Your task to perform on an android device: toggle javascript in the chrome app Image 0: 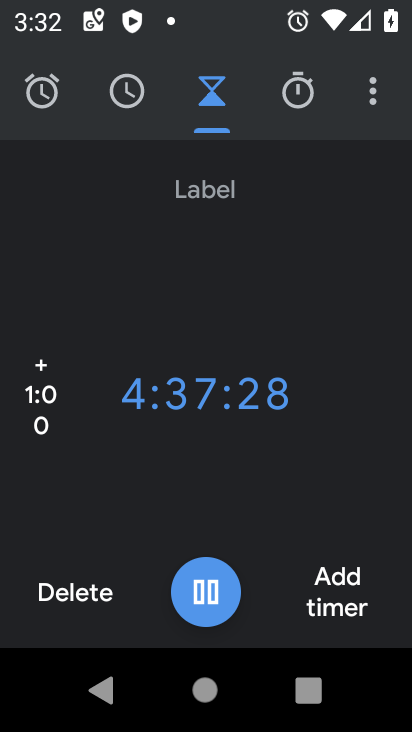
Step 0: press home button
Your task to perform on an android device: toggle javascript in the chrome app Image 1: 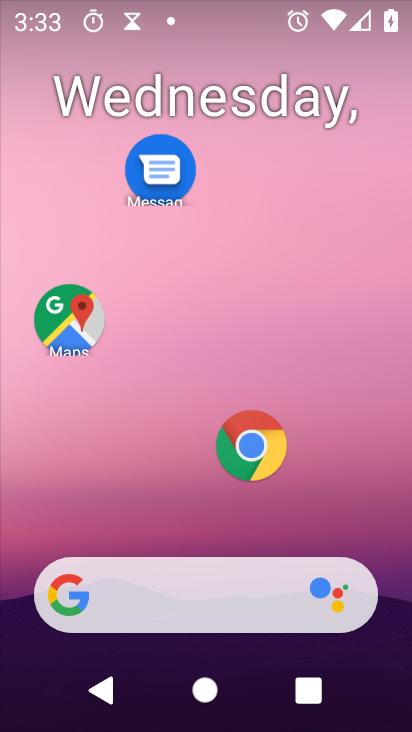
Step 1: click (255, 455)
Your task to perform on an android device: toggle javascript in the chrome app Image 2: 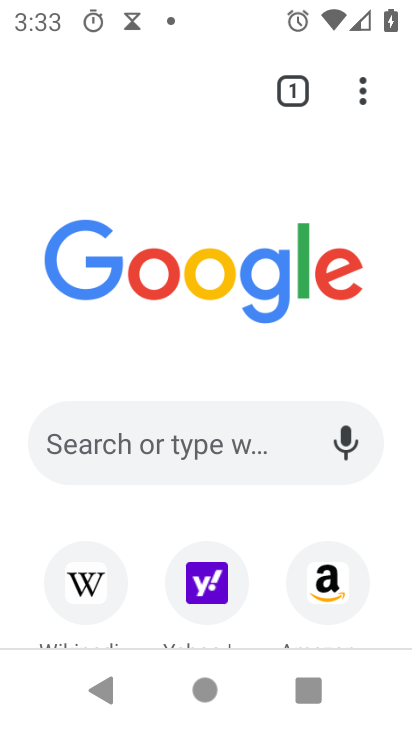
Step 2: click (365, 88)
Your task to perform on an android device: toggle javascript in the chrome app Image 3: 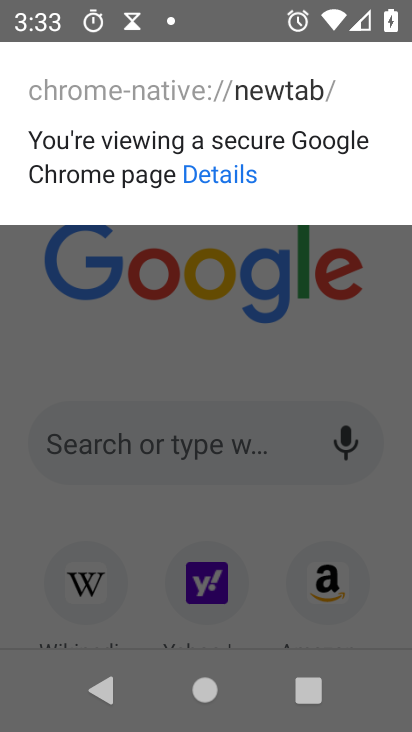
Step 3: press back button
Your task to perform on an android device: toggle javascript in the chrome app Image 4: 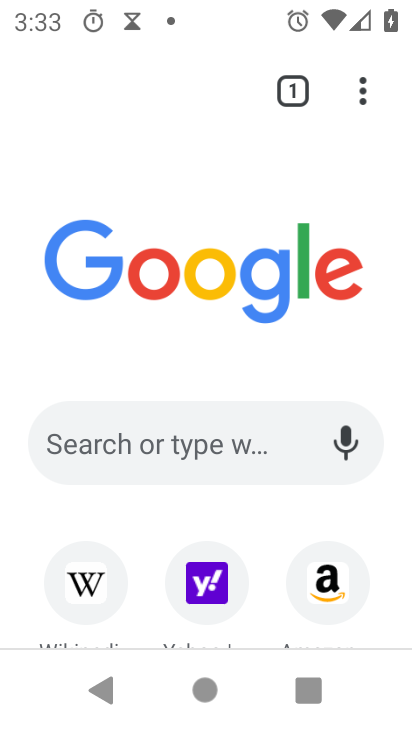
Step 4: click (364, 79)
Your task to perform on an android device: toggle javascript in the chrome app Image 5: 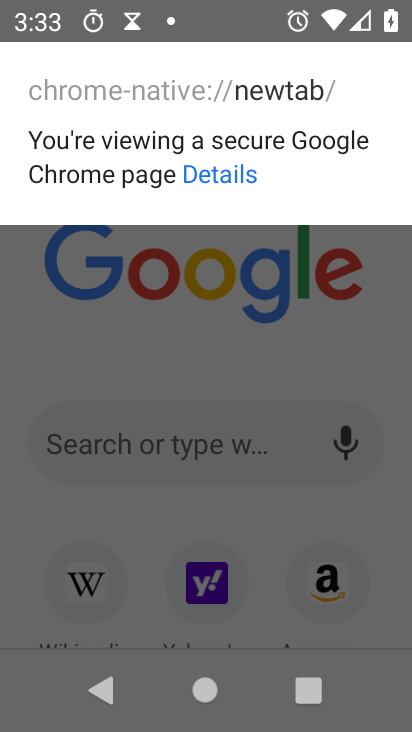
Step 5: press back button
Your task to perform on an android device: toggle javascript in the chrome app Image 6: 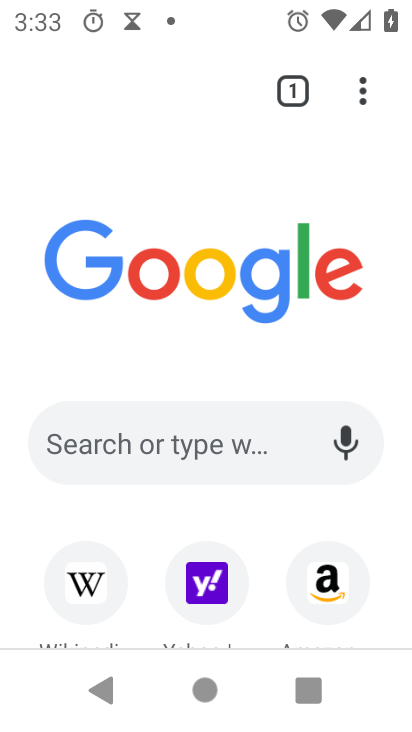
Step 6: click (358, 90)
Your task to perform on an android device: toggle javascript in the chrome app Image 7: 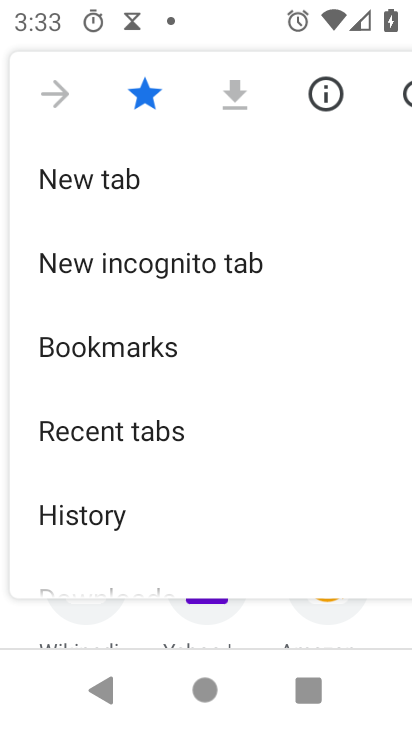
Step 7: drag from (34, 544) to (383, 61)
Your task to perform on an android device: toggle javascript in the chrome app Image 8: 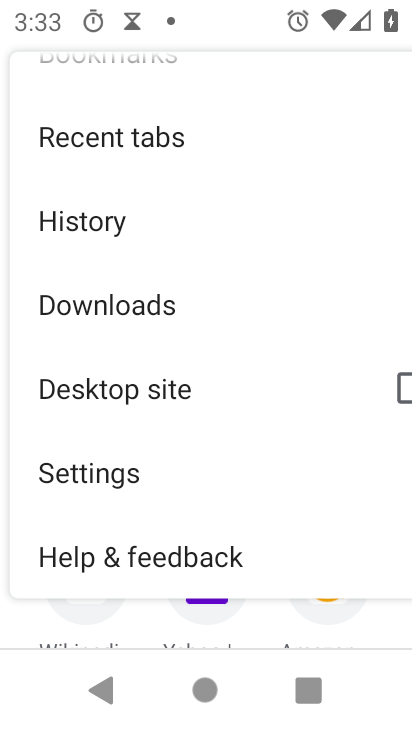
Step 8: click (111, 488)
Your task to perform on an android device: toggle javascript in the chrome app Image 9: 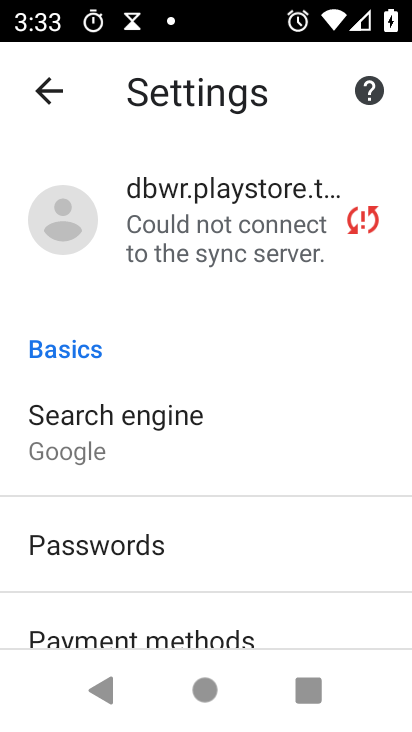
Step 9: drag from (22, 551) to (388, 91)
Your task to perform on an android device: toggle javascript in the chrome app Image 10: 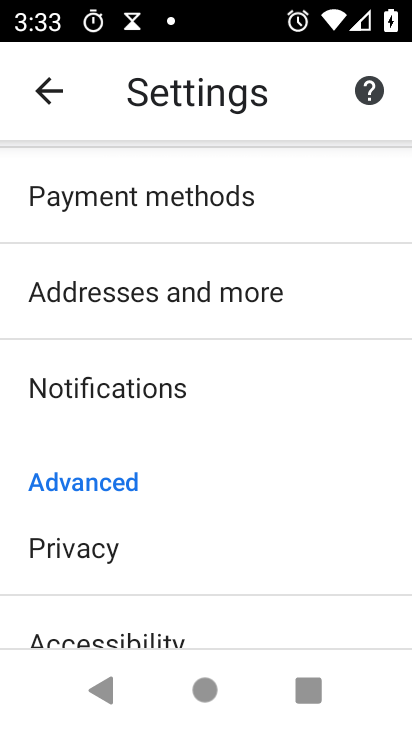
Step 10: drag from (31, 585) to (282, 276)
Your task to perform on an android device: toggle javascript in the chrome app Image 11: 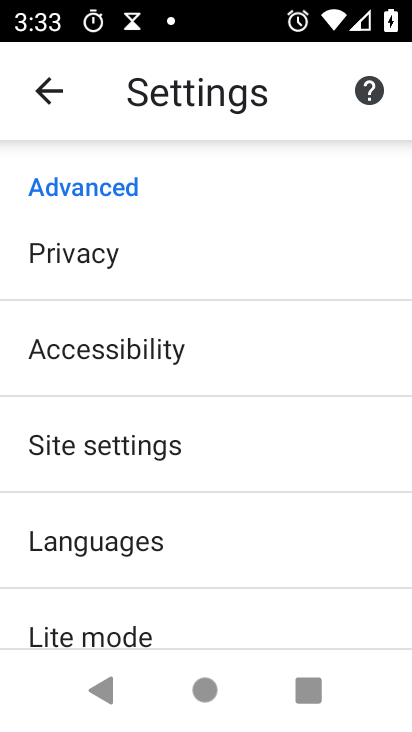
Step 11: click (122, 447)
Your task to perform on an android device: toggle javascript in the chrome app Image 12: 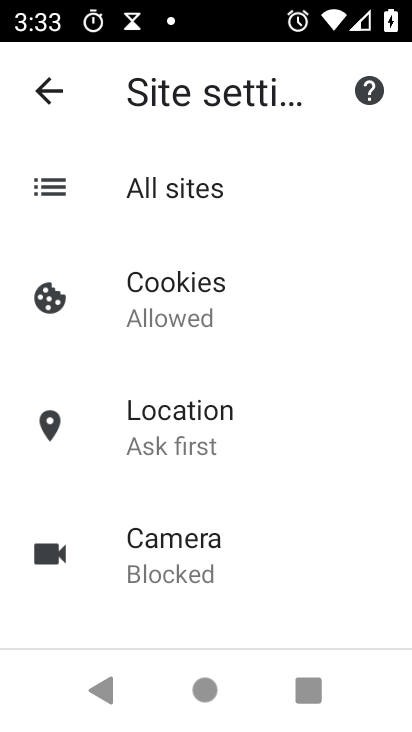
Step 12: drag from (56, 520) to (323, 147)
Your task to perform on an android device: toggle javascript in the chrome app Image 13: 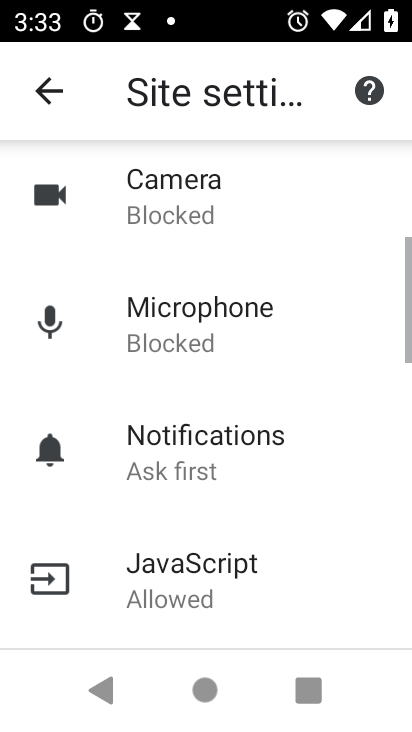
Step 13: click (109, 594)
Your task to perform on an android device: toggle javascript in the chrome app Image 14: 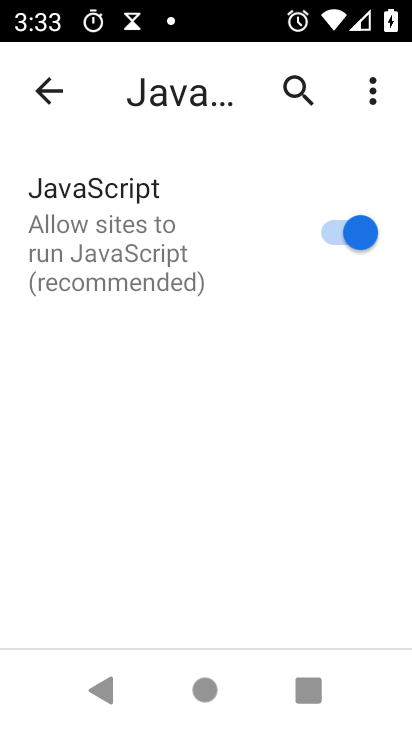
Step 14: task complete